Your task to perform on an android device: Go to sound settings Image 0: 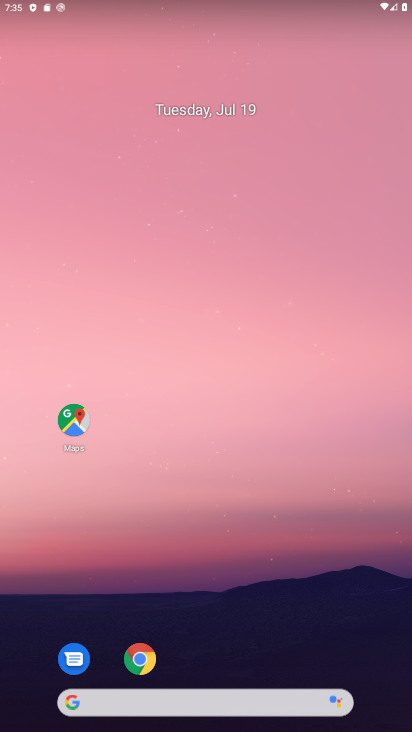
Step 0: drag from (230, 598) to (224, 69)
Your task to perform on an android device: Go to sound settings Image 1: 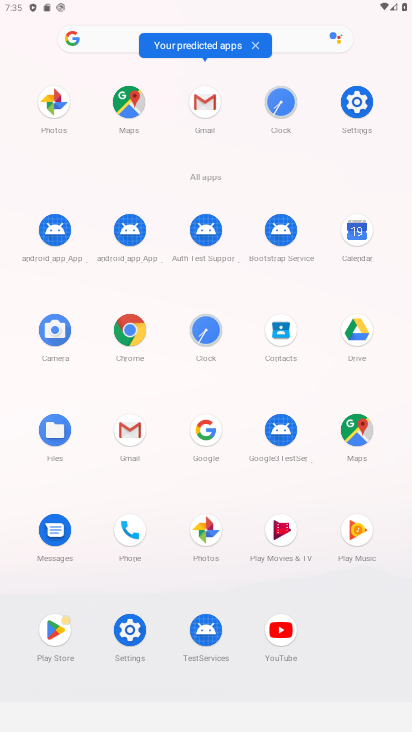
Step 1: click (359, 110)
Your task to perform on an android device: Go to sound settings Image 2: 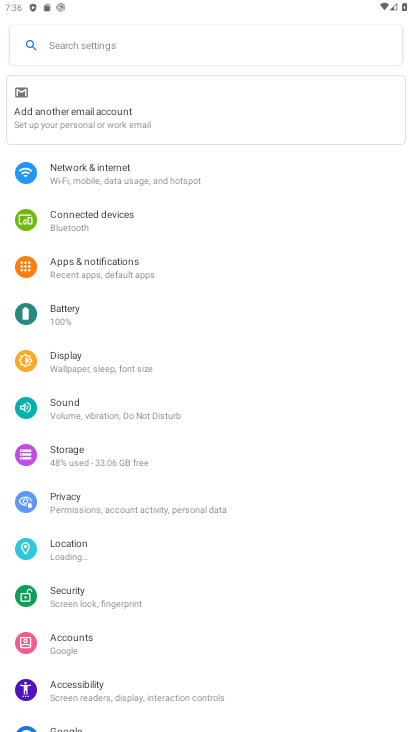
Step 2: click (78, 397)
Your task to perform on an android device: Go to sound settings Image 3: 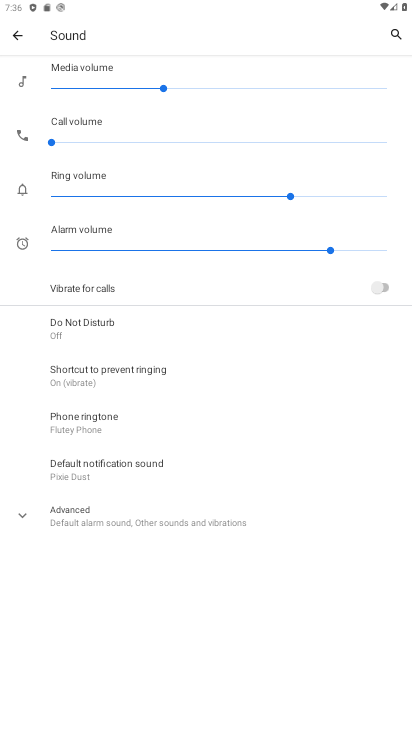
Step 3: task complete